Your task to perform on an android device: open app "DuckDuckGo Privacy Browser" (install if not already installed) Image 0: 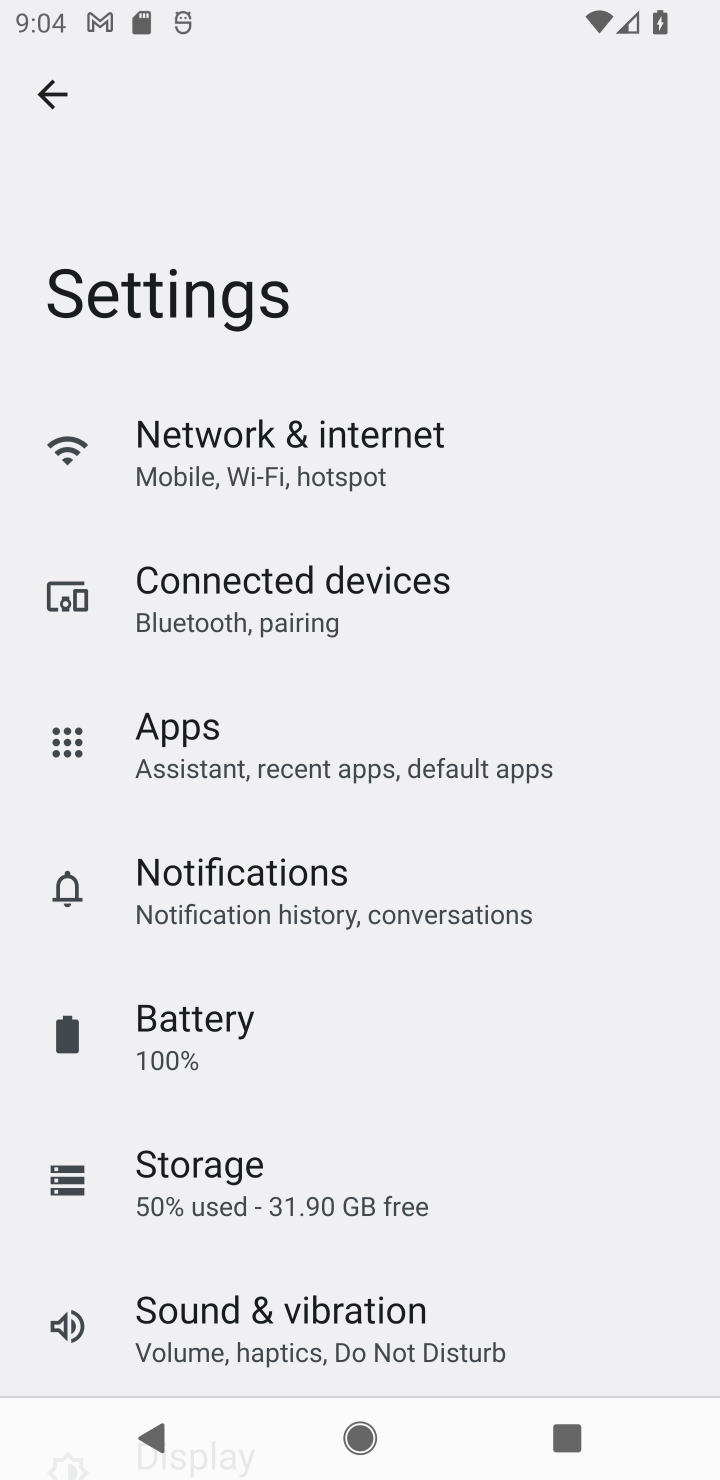
Step 0: press home button
Your task to perform on an android device: open app "DuckDuckGo Privacy Browser" (install if not already installed) Image 1: 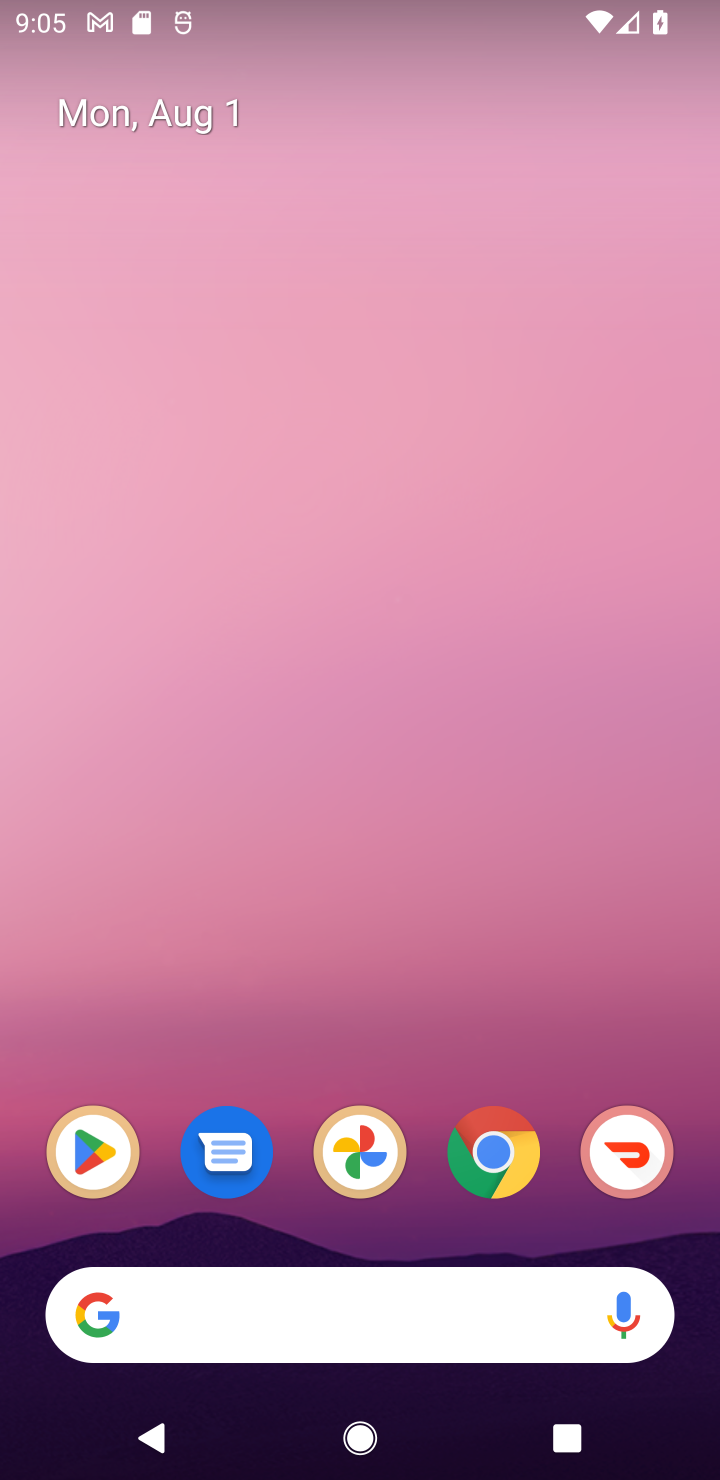
Step 1: drag from (313, 1222) to (330, 320)
Your task to perform on an android device: open app "DuckDuckGo Privacy Browser" (install if not already installed) Image 2: 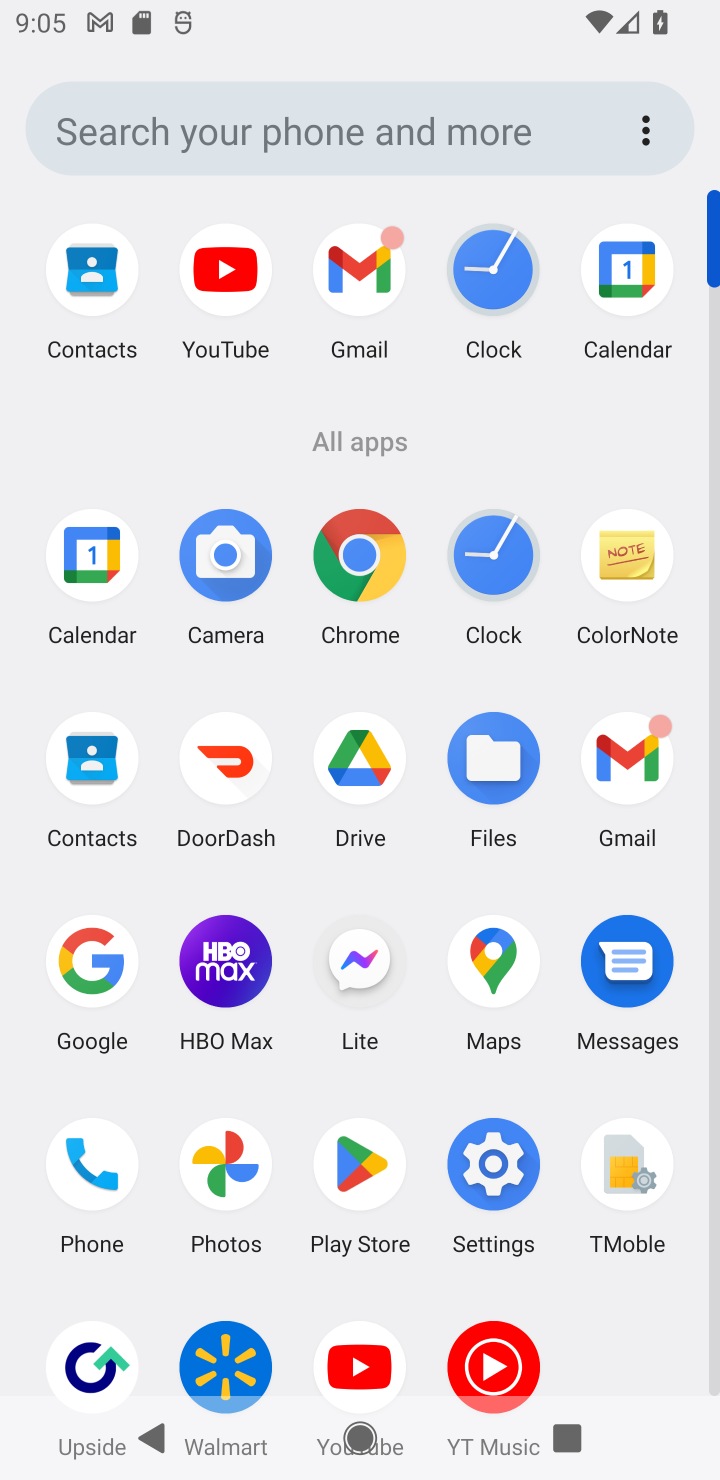
Step 2: click (363, 1202)
Your task to perform on an android device: open app "DuckDuckGo Privacy Browser" (install if not already installed) Image 3: 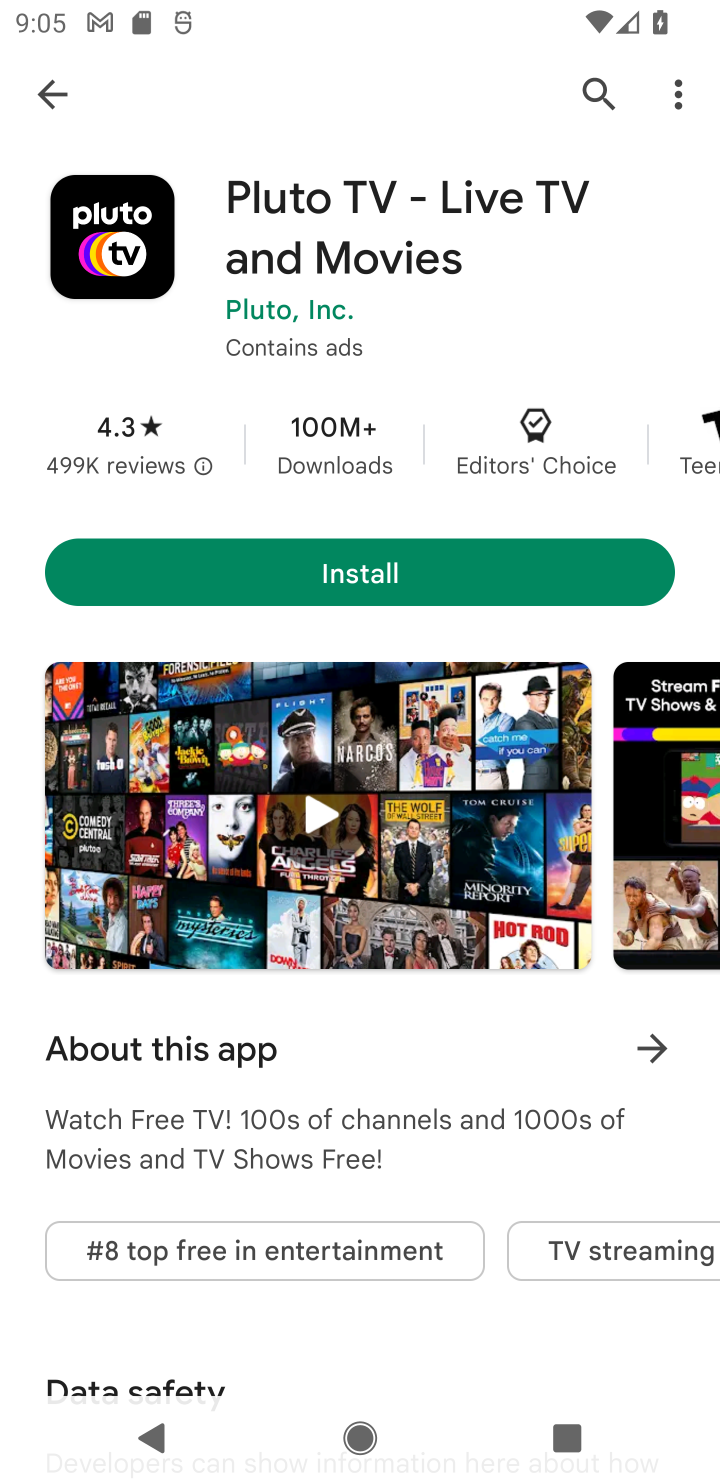
Step 3: click (39, 87)
Your task to perform on an android device: open app "DuckDuckGo Privacy Browser" (install if not already installed) Image 4: 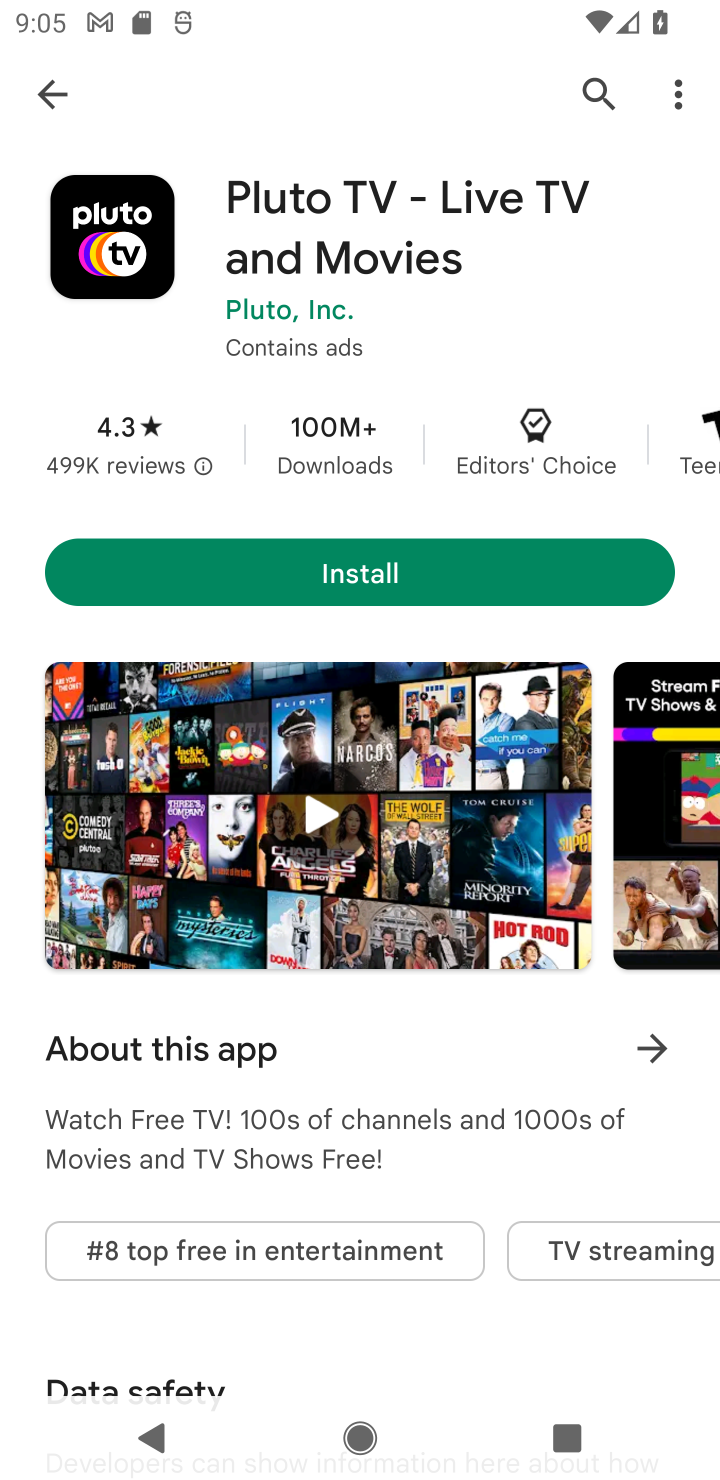
Step 4: click (62, 105)
Your task to perform on an android device: open app "DuckDuckGo Privacy Browser" (install if not already installed) Image 5: 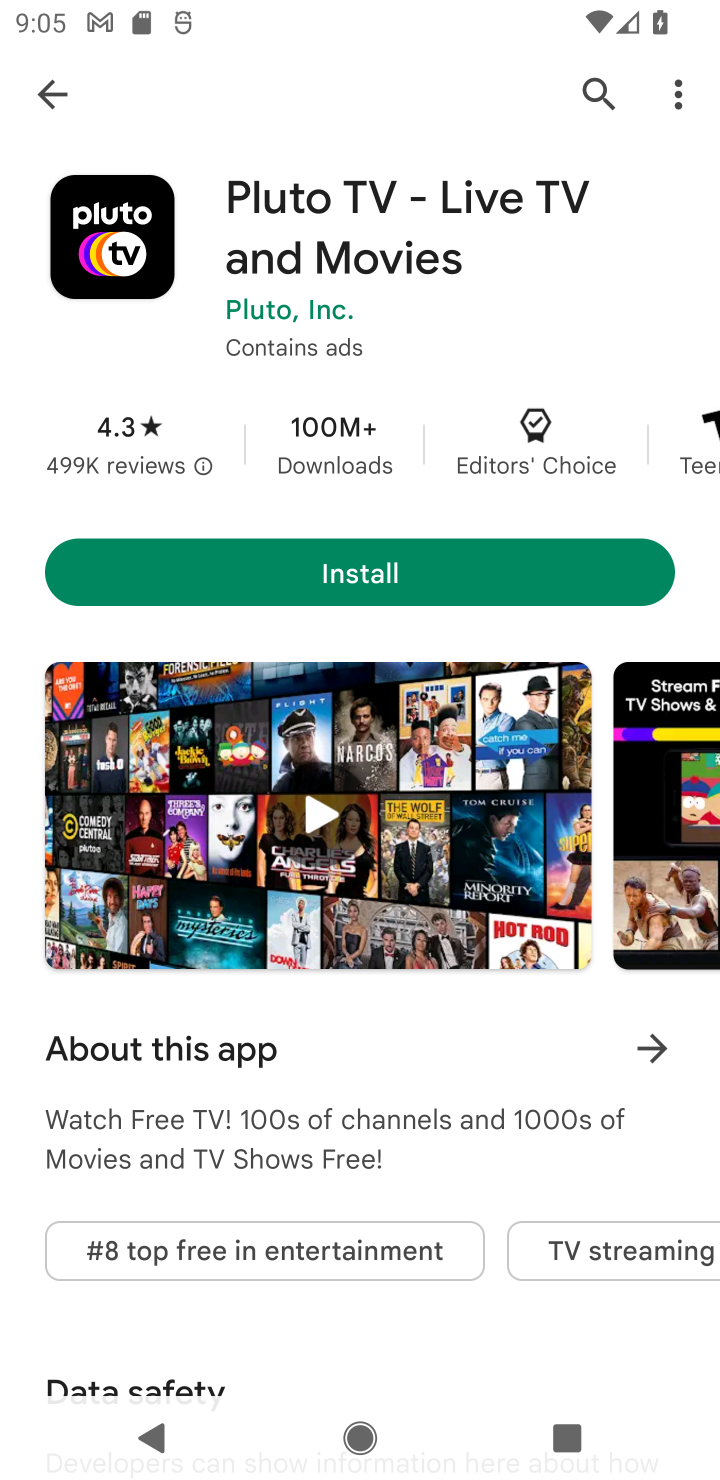
Step 5: click (42, 88)
Your task to perform on an android device: open app "DuckDuckGo Privacy Browser" (install if not already installed) Image 6: 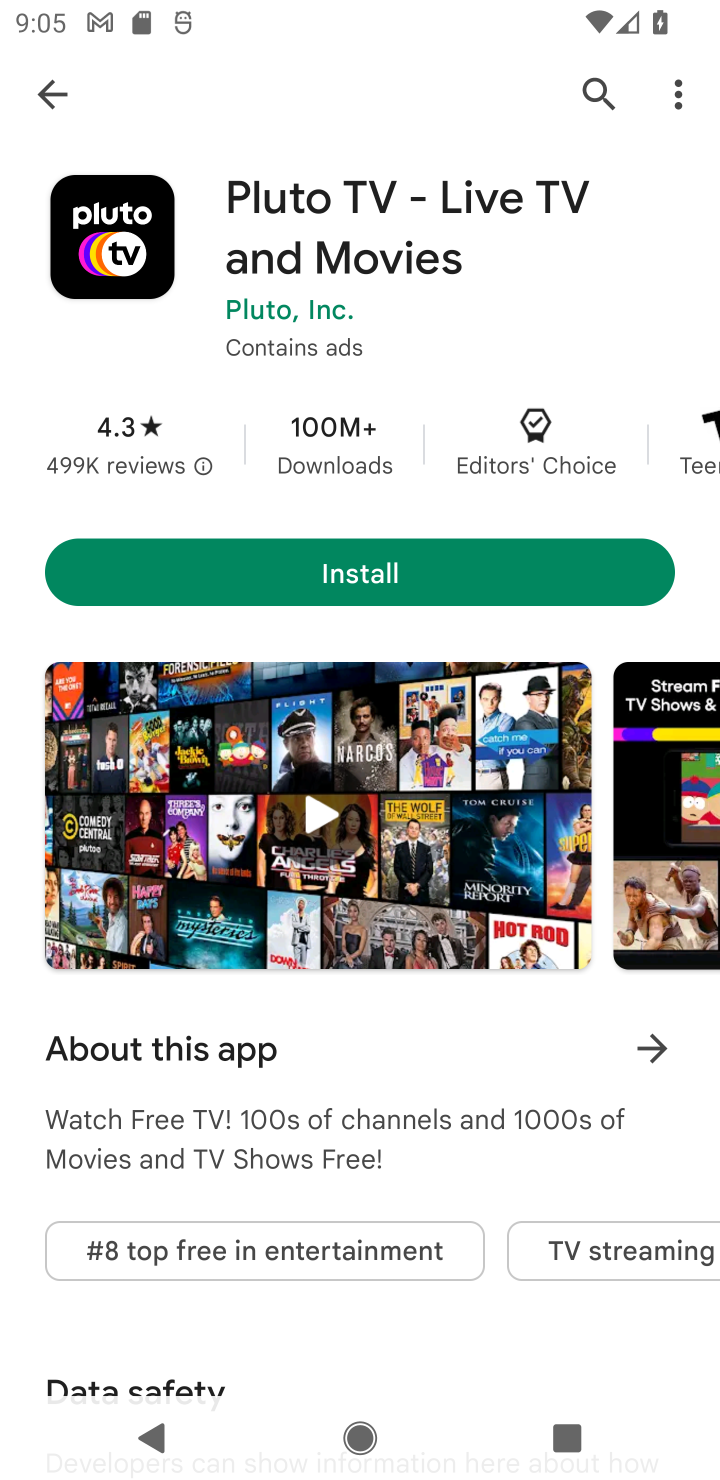
Step 6: click (42, 88)
Your task to perform on an android device: open app "DuckDuckGo Privacy Browser" (install if not already installed) Image 7: 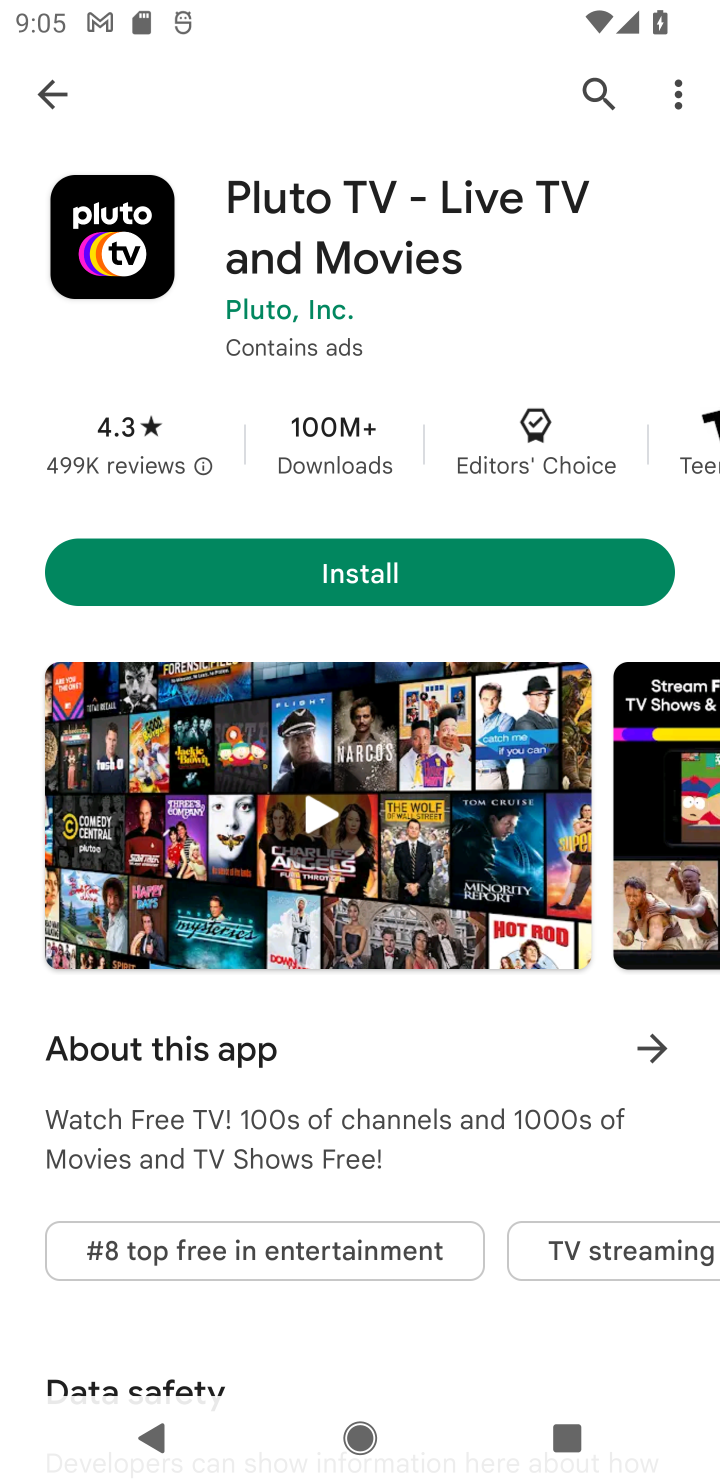
Step 7: press back button
Your task to perform on an android device: open app "DuckDuckGo Privacy Browser" (install if not already installed) Image 8: 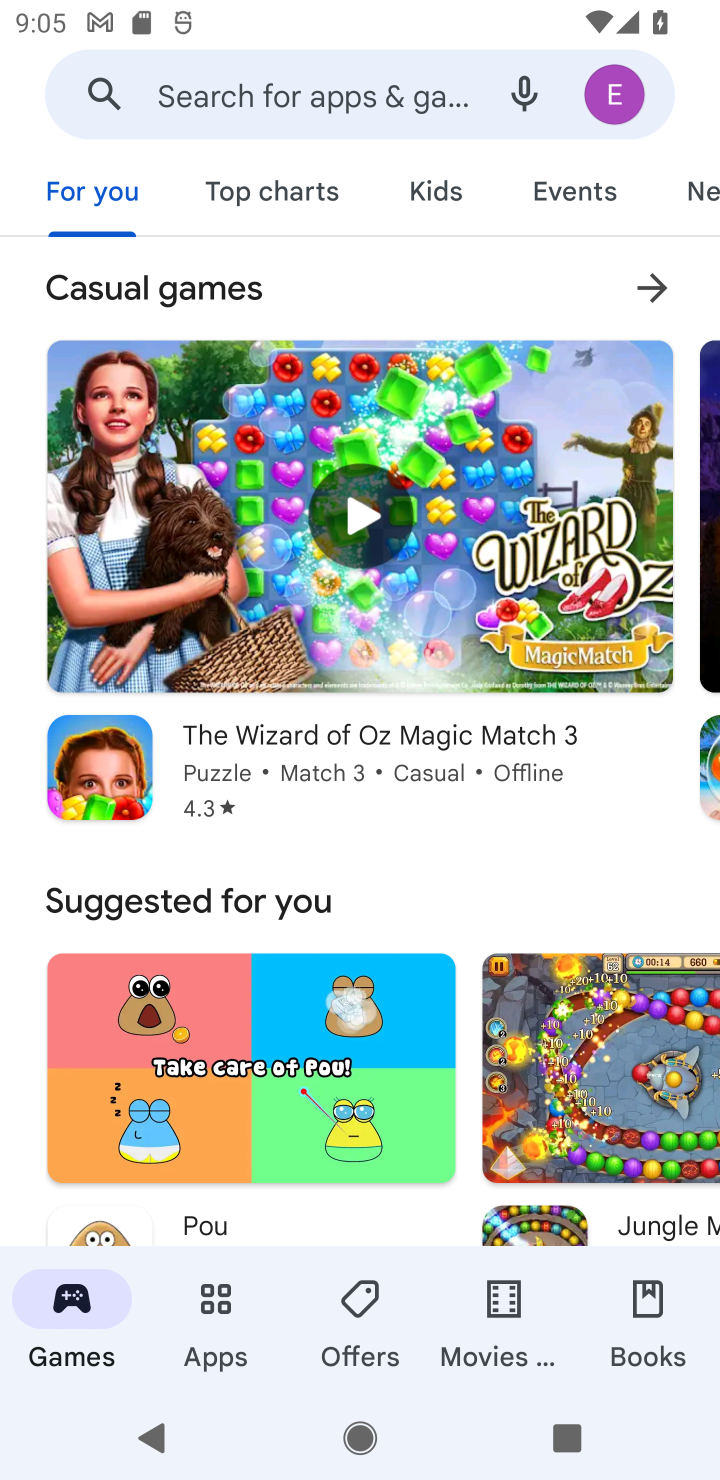
Step 8: click (380, 115)
Your task to perform on an android device: open app "DuckDuckGo Privacy Browser" (install if not already installed) Image 9: 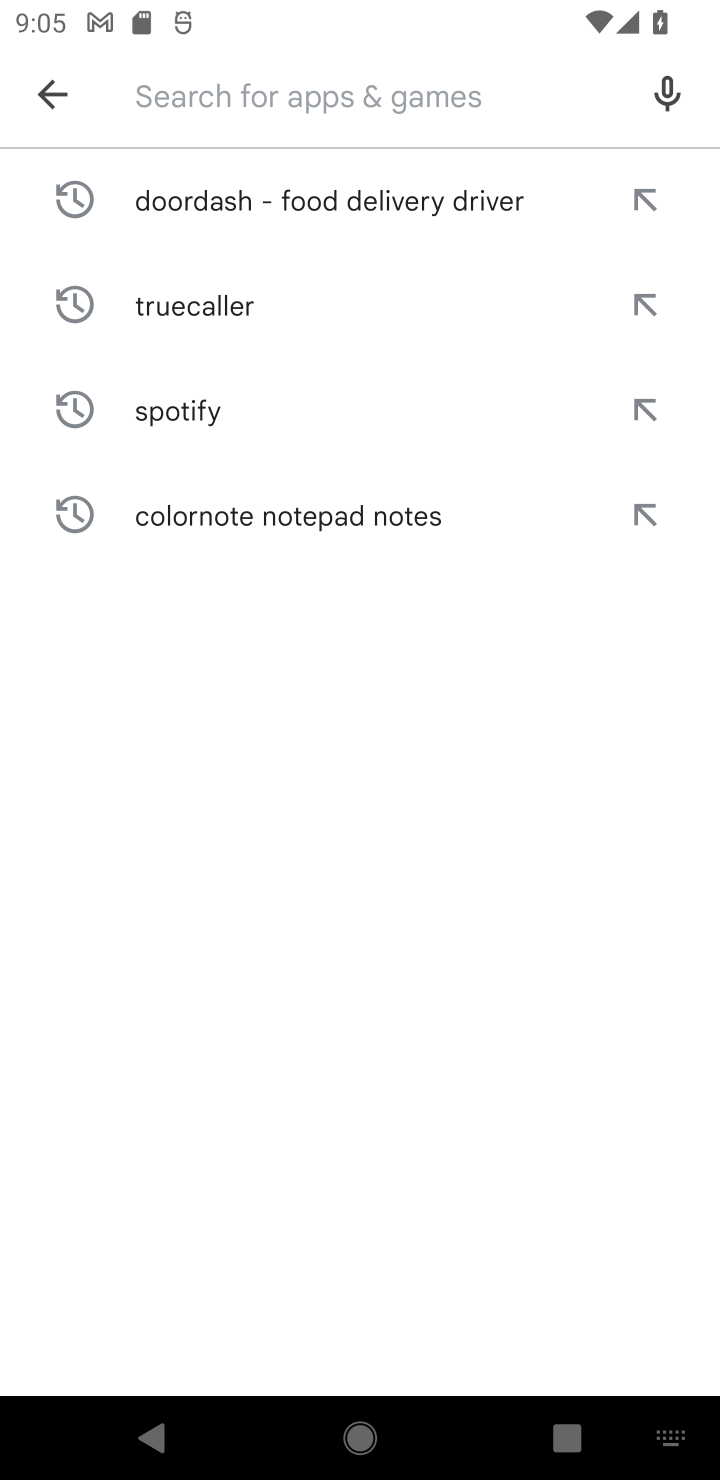
Step 9: type "DuckDuckGo Privacy Browser"
Your task to perform on an android device: open app "DuckDuckGo Privacy Browser" (install if not already installed) Image 10: 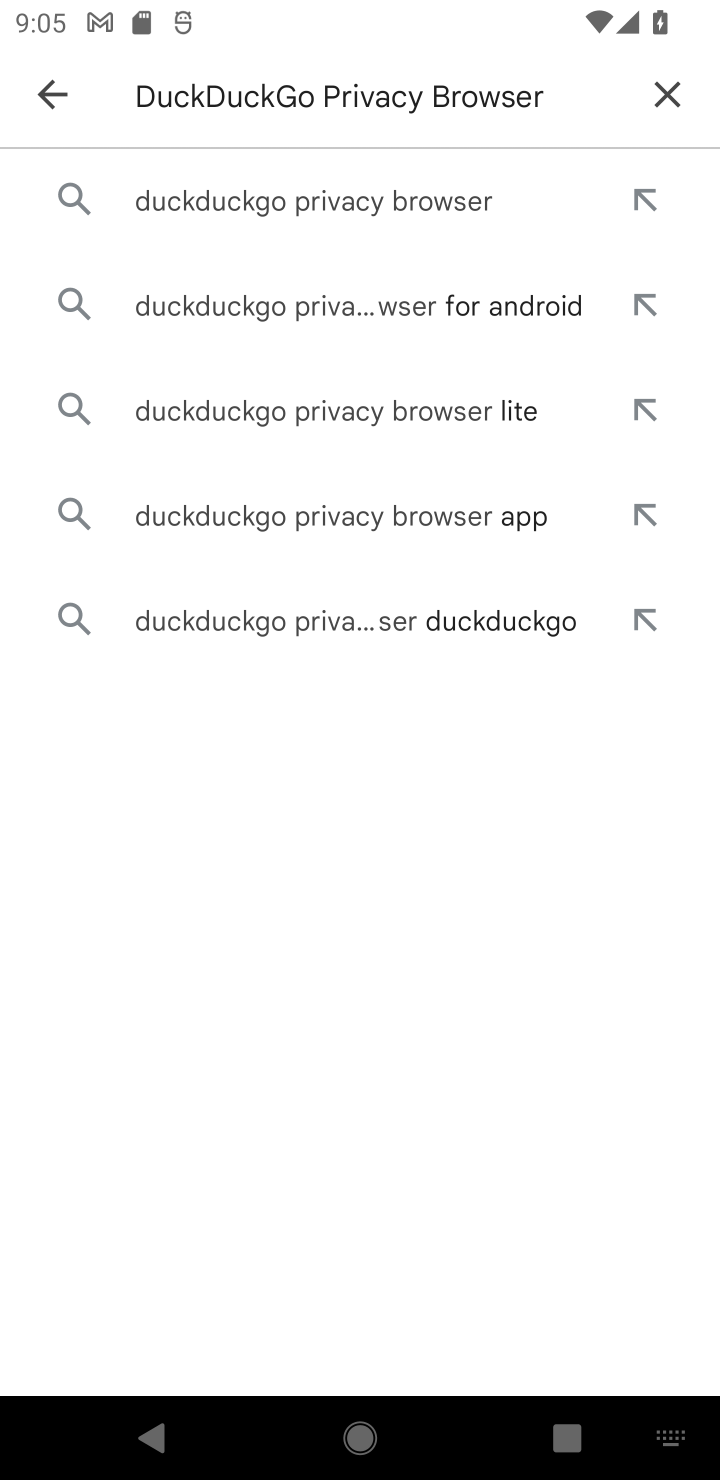
Step 10: click (206, 194)
Your task to perform on an android device: open app "DuckDuckGo Privacy Browser" (install if not already installed) Image 11: 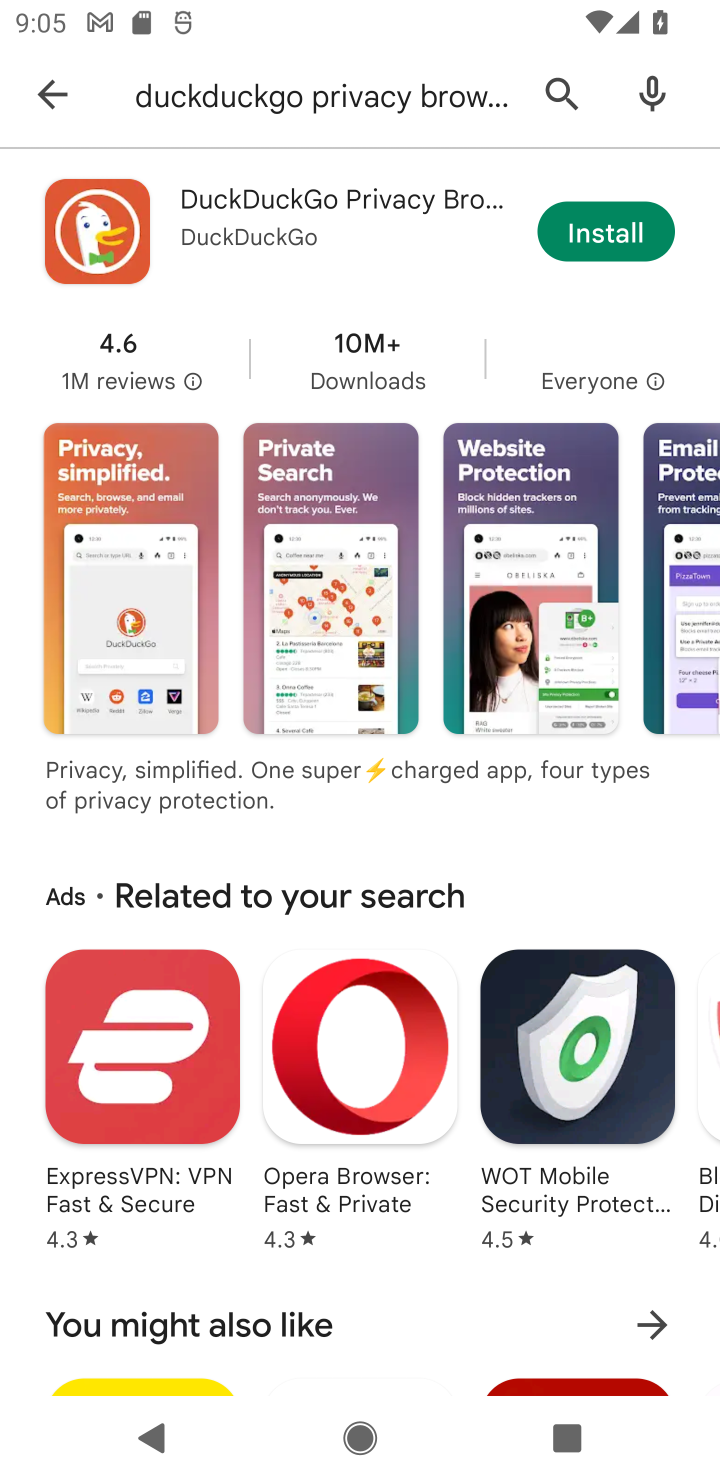
Step 11: click (565, 234)
Your task to perform on an android device: open app "DuckDuckGo Privacy Browser" (install if not already installed) Image 12: 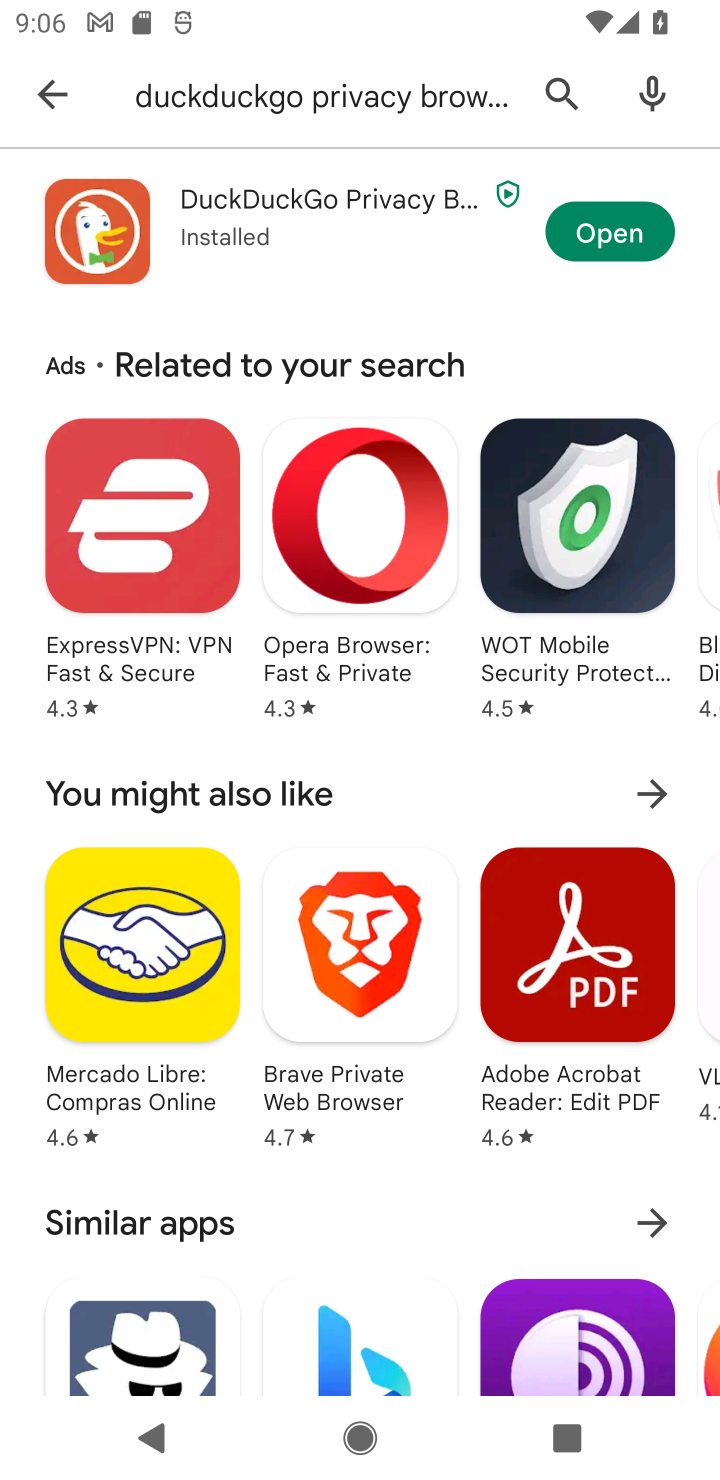
Step 12: click (601, 234)
Your task to perform on an android device: open app "DuckDuckGo Privacy Browser" (install if not already installed) Image 13: 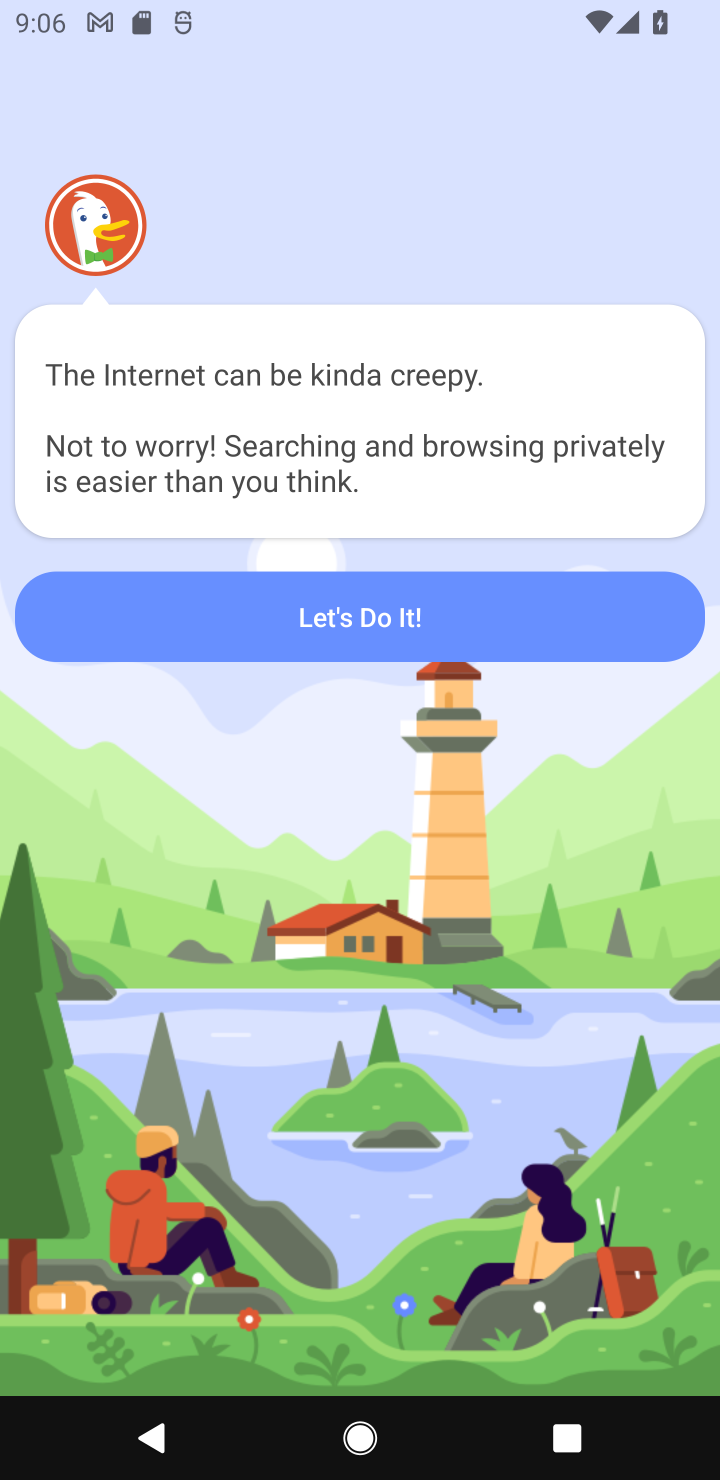
Step 13: task complete